Your task to perform on an android device: Is it going to rain today? Image 0: 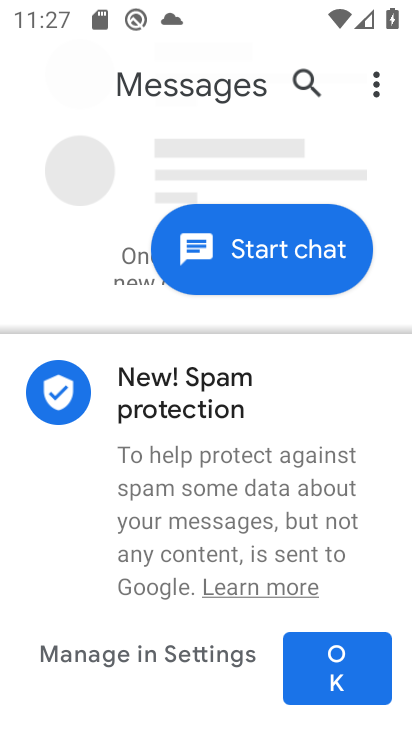
Step 0: press home button
Your task to perform on an android device: Is it going to rain today? Image 1: 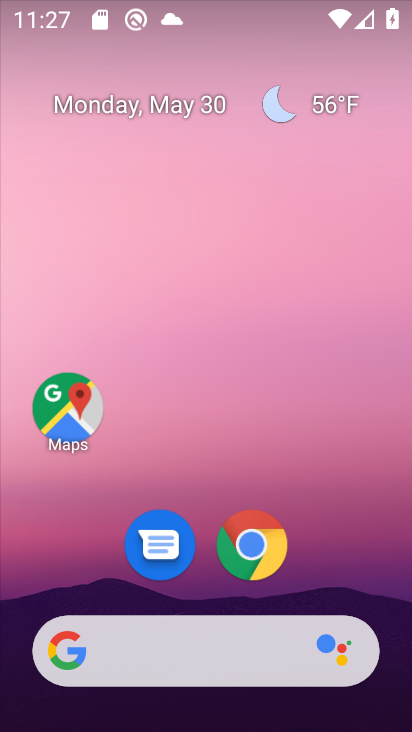
Step 1: click (327, 122)
Your task to perform on an android device: Is it going to rain today? Image 2: 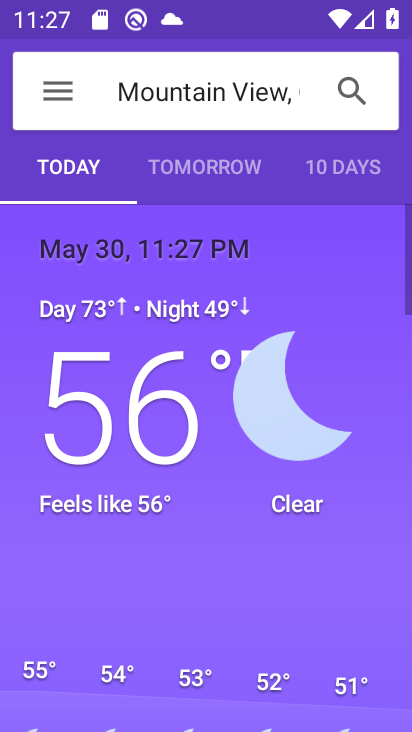
Step 2: task complete